Your task to perform on an android device: add a label to a message in the gmail app Image 0: 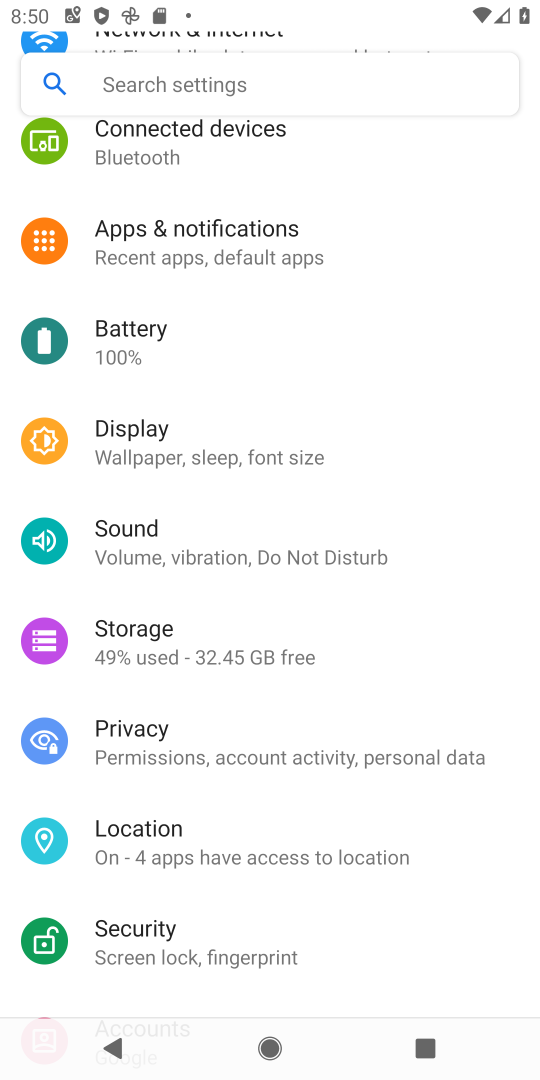
Step 0: press home button
Your task to perform on an android device: add a label to a message in the gmail app Image 1: 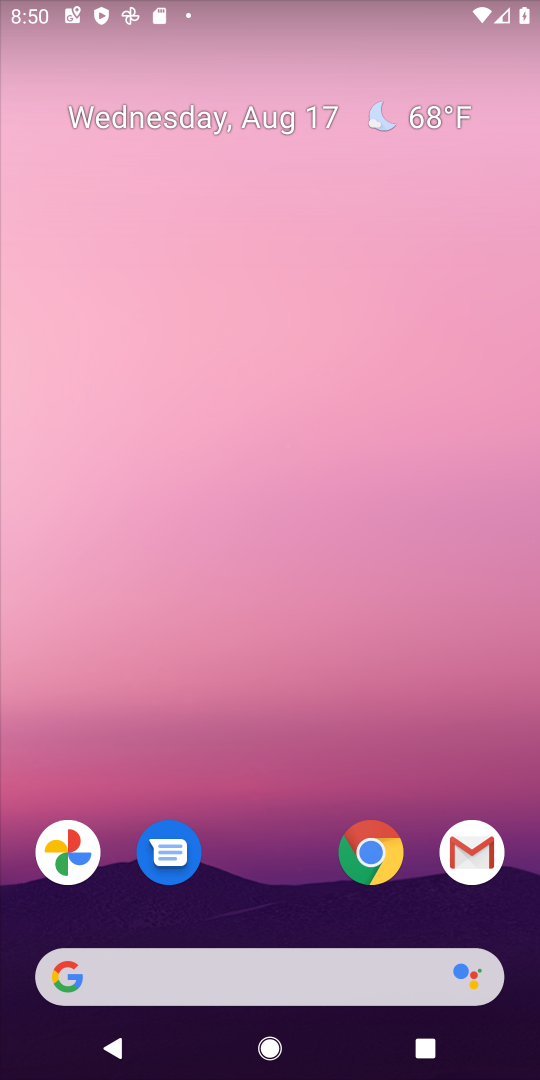
Step 1: click (472, 853)
Your task to perform on an android device: add a label to a message in the gmail app Image 2: 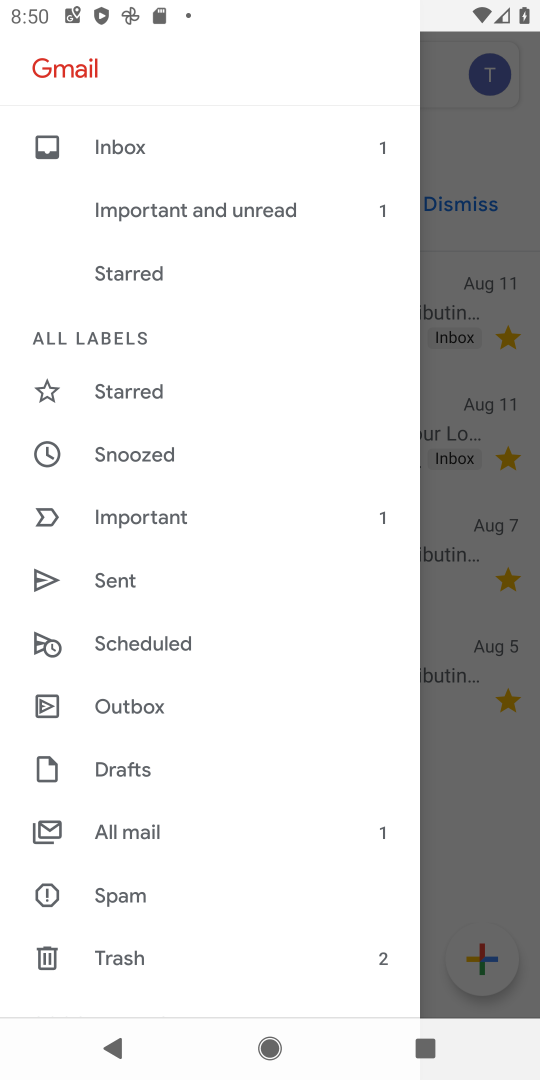
Step 2: click (161, 830)
Your task to perform on an android device: add a label to a message in the gmail app Image 3: 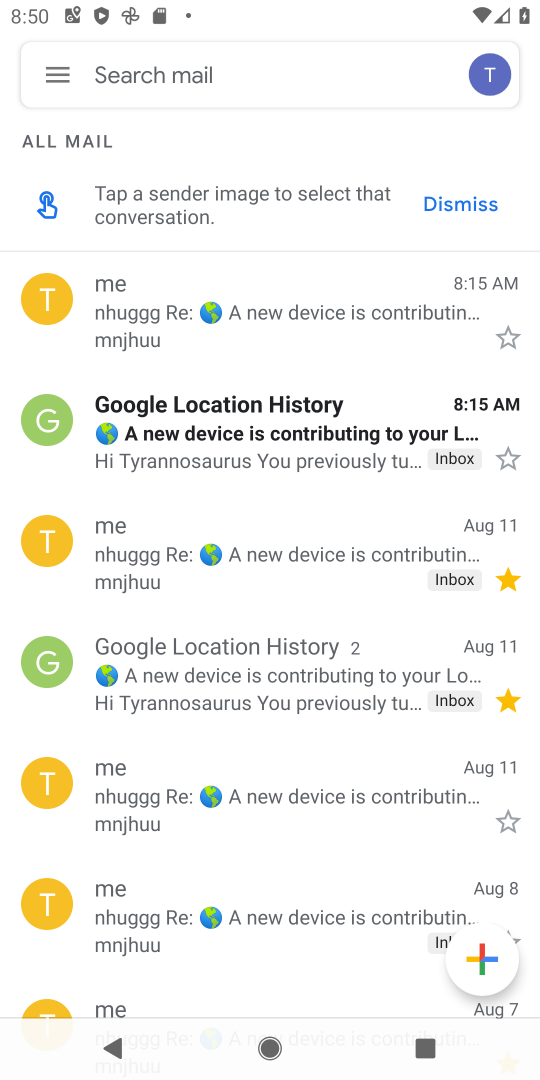
Step 3: click (253, 294)
Your task to perform on an android device: add a label to a message in the gmail app Image 4: 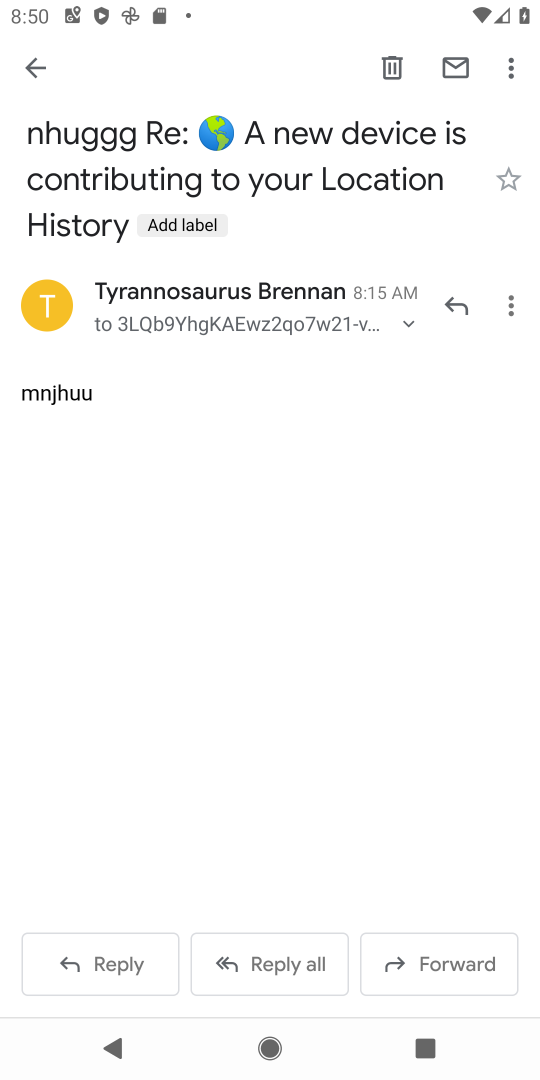
Step 4: click (513, 65)
Your task to perform on an android device: add a label to a message in the gmail app Image 5: 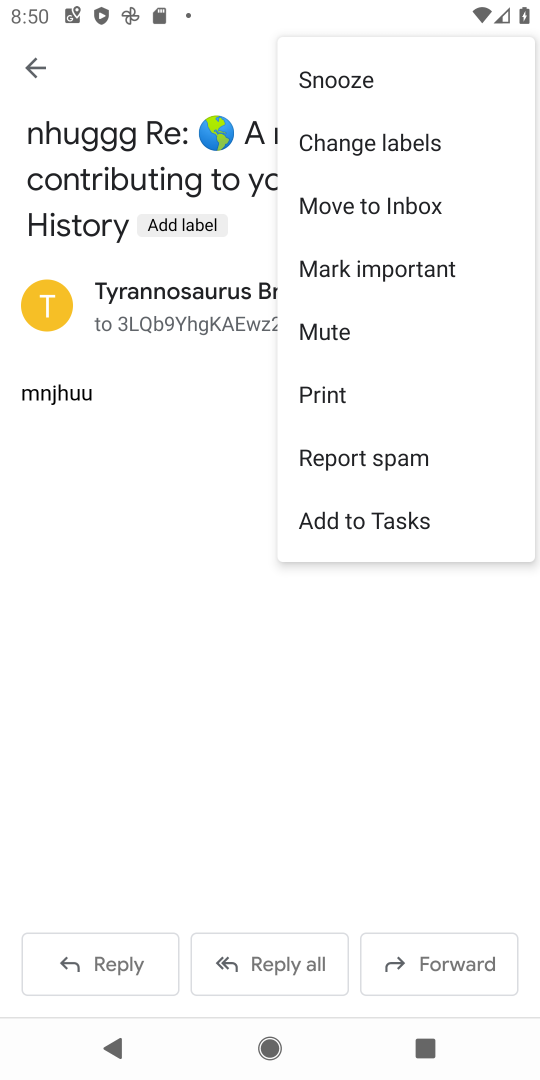
Step 5: click (367, 153)
Your task to perform on an android device: add a label to a message in the gmail app Image 6: 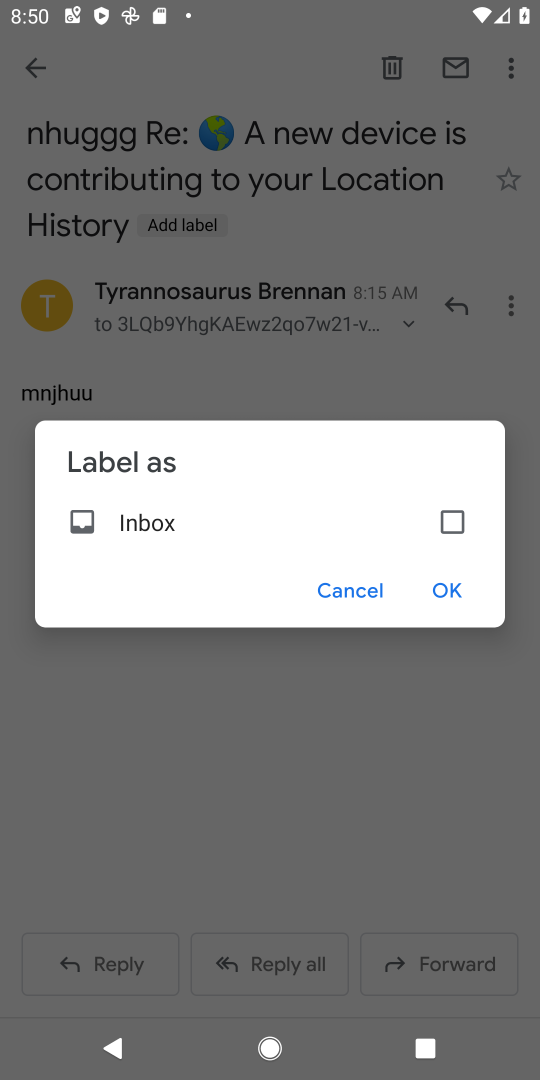
Step 6: click (451, 515)
Your task to perform on an android device: add a label to a message in the gmail app Image 7: 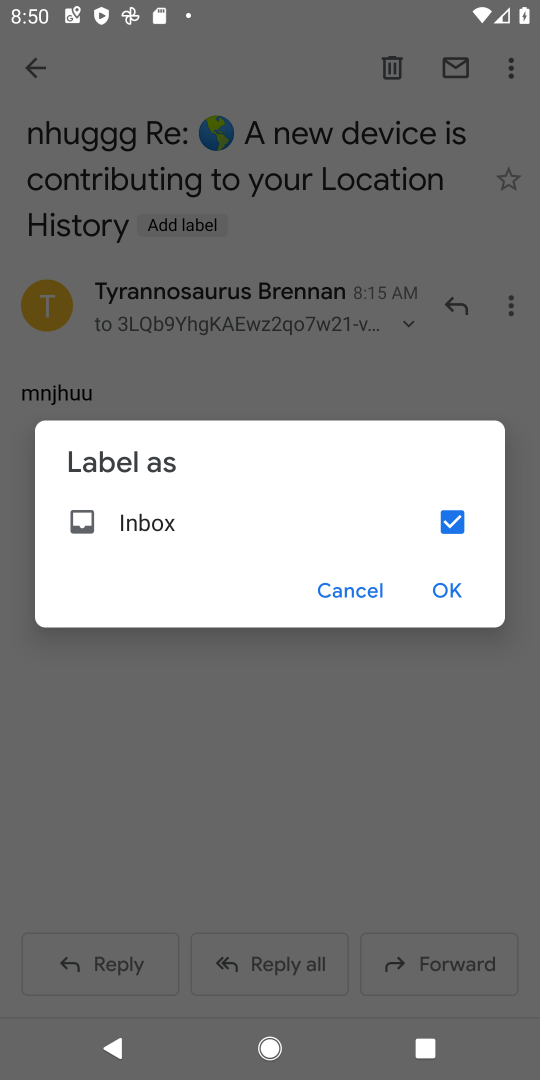
Step 7: click (451, 586)
Your task to perform on an android device: add a label to a message in the gmail app Image 8: 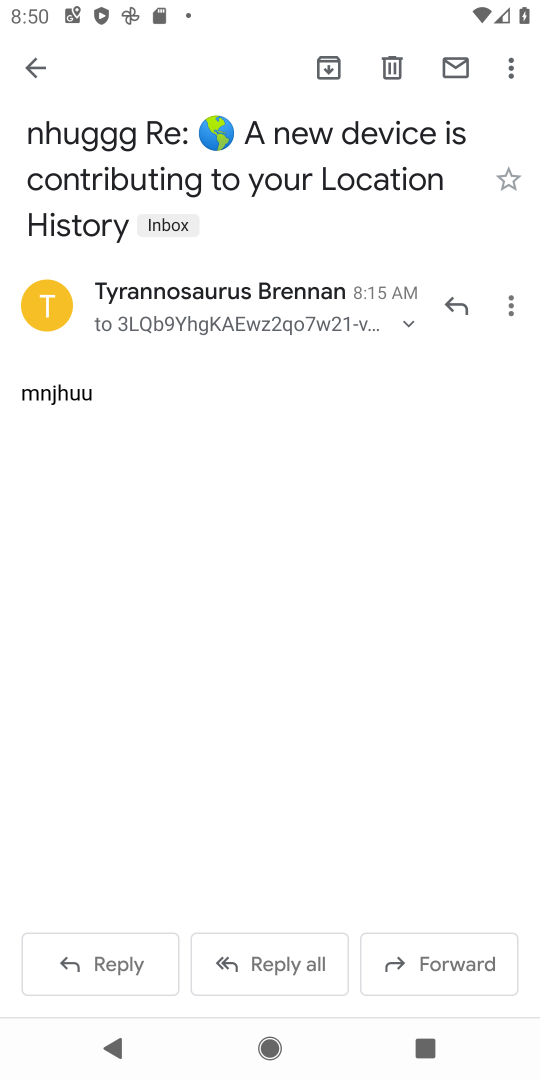
Step 8: task complete